Your task to perform on an android device: change your default location settings in chrome Image 0: 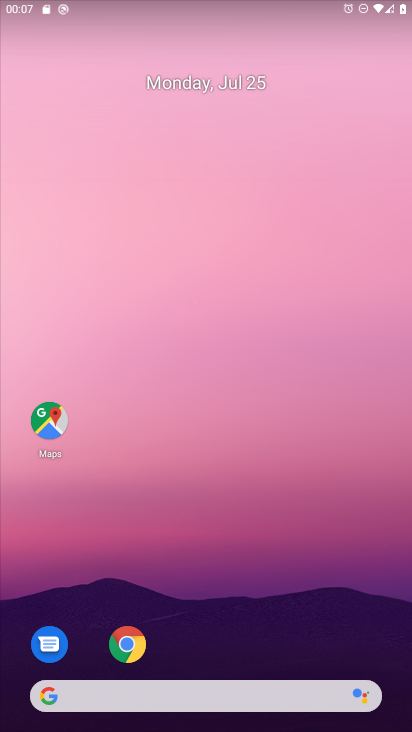
Step 0: click (129, 648)
Your task to perform on an android device: change your default location settings in chrome Image 1: 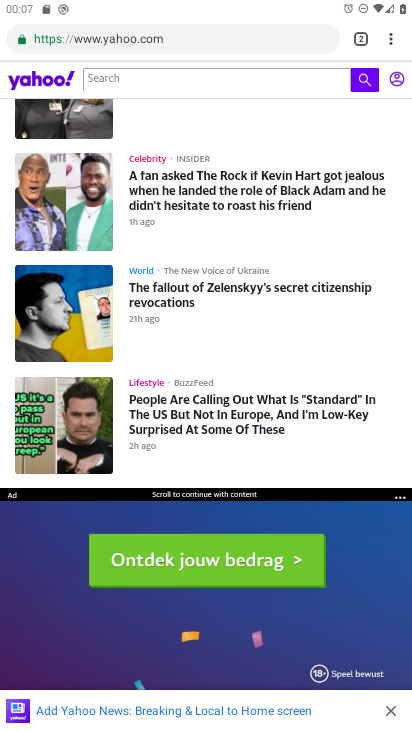
Step 1: click (391, 45)
Your task to perform on an android device: change your default location settings in chrome Image 2: 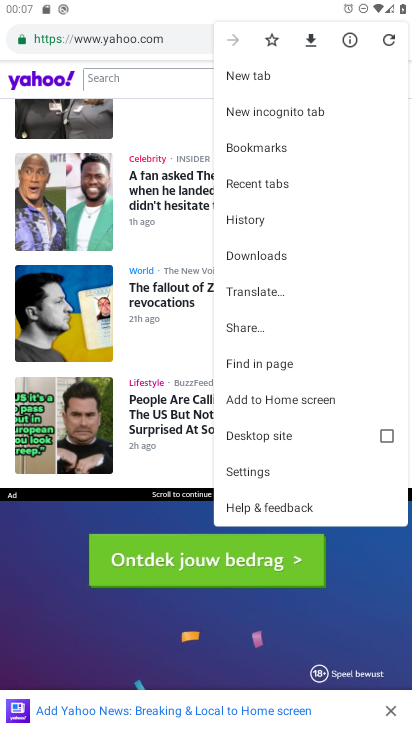
Step 2: click (262, 468)
Your task to perform on an android device: change your default location settings in chrome Image 3: 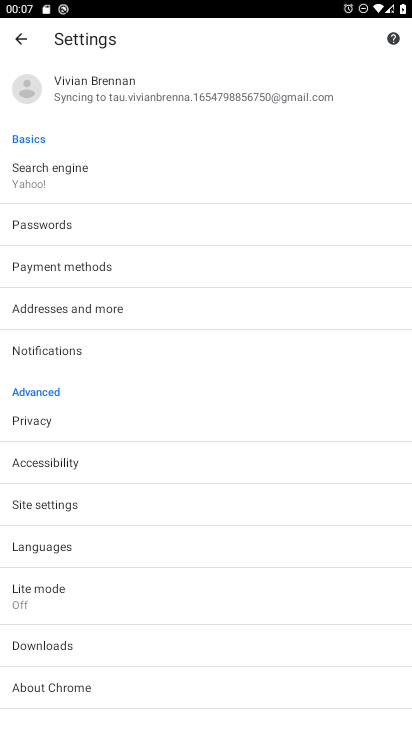
Step 3: click (52, 509)
Your task to perform on an android device: change your default location settings in chrome Image 4: 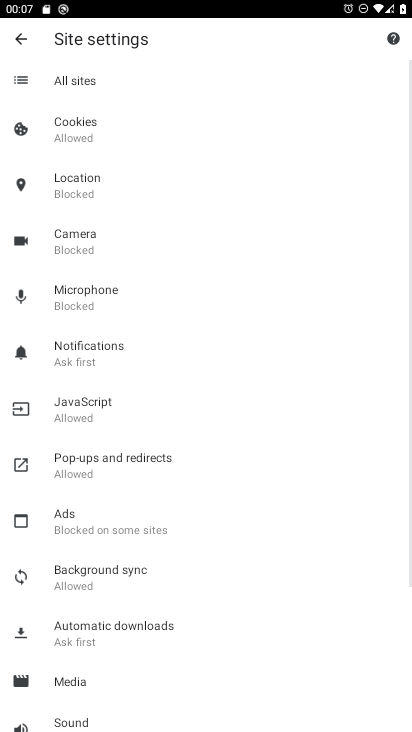
Step 4: click (80, 174)
Your task to perform on an android device: change your default location settings in chrome Image 5: 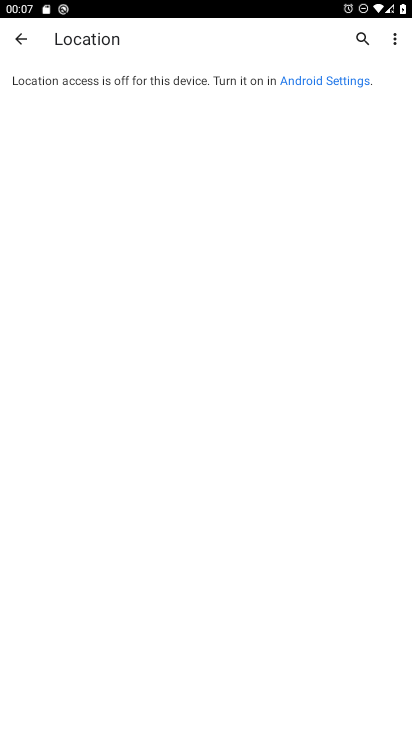
Step 5: task complete